Your task to perform on an android device: turn off notifications settings in the gmail app Image 0: 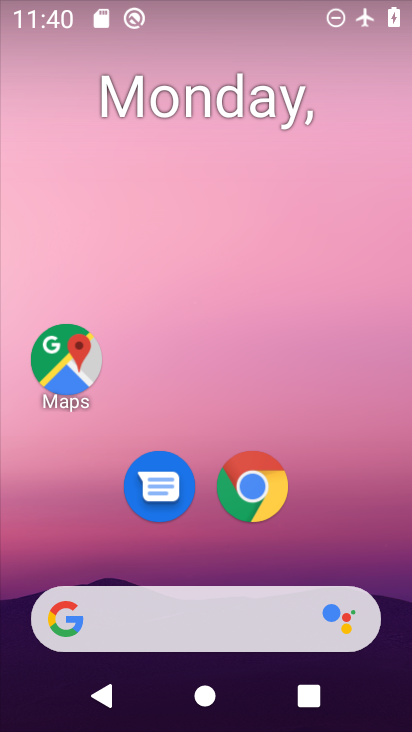
Step 0: drag from (73, 518) to (229, 229)
Your task to perform on an android device: turn off notifications settings in the gmail app Image 1: 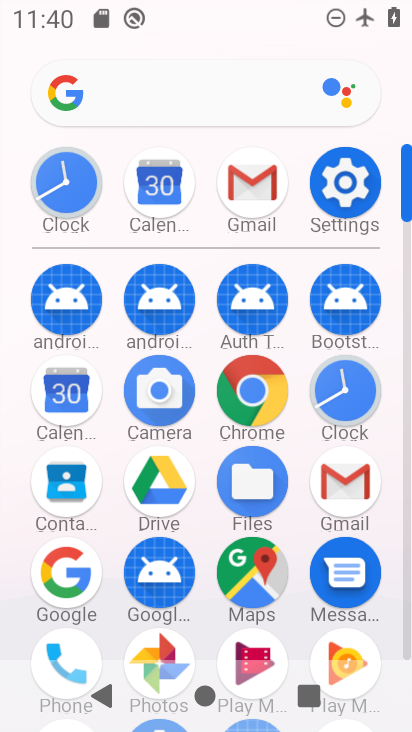
Step 1: click (242, 181)
Your task to perform on an android device: turn off notifications settings in the gmail app Image 2: 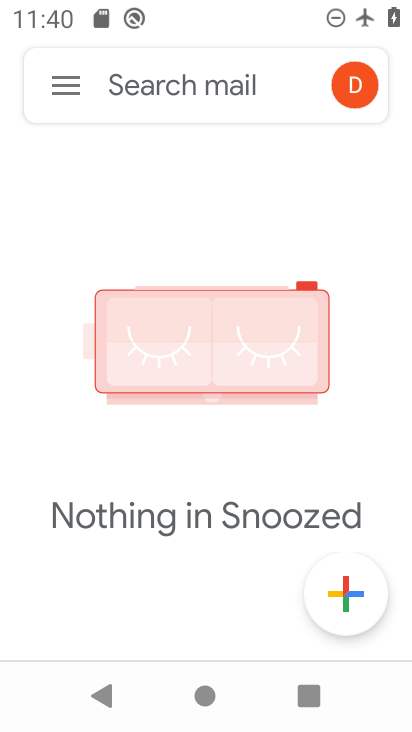
Step 2: click (58, 79)
Your task to perform on an android device: turn off notifications settings in the gmail app Image 3: 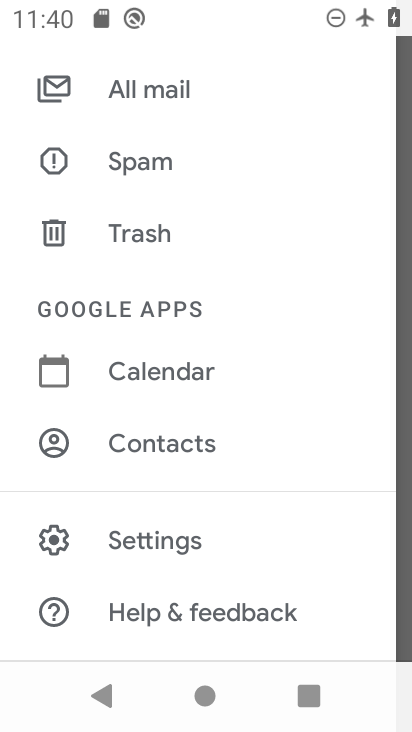
Step 3: click (154, 543)
Your task to perform on an android device: turn off notifications settings in the gmail app Image 4: 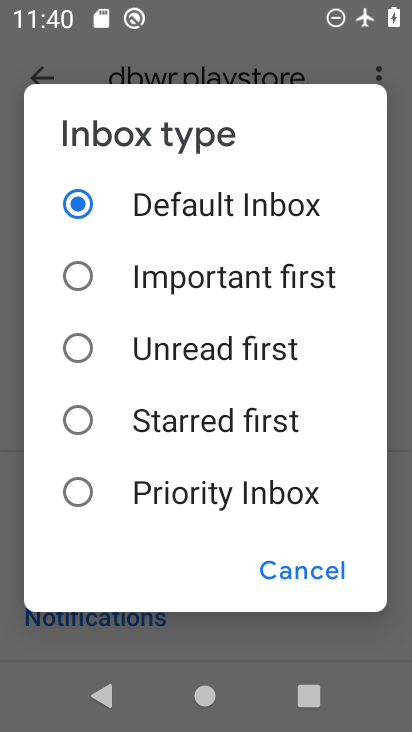
Step 4: click (290, 566)
Your task to perform on an android device: turn off notifications settings in the gmail app Image 5: 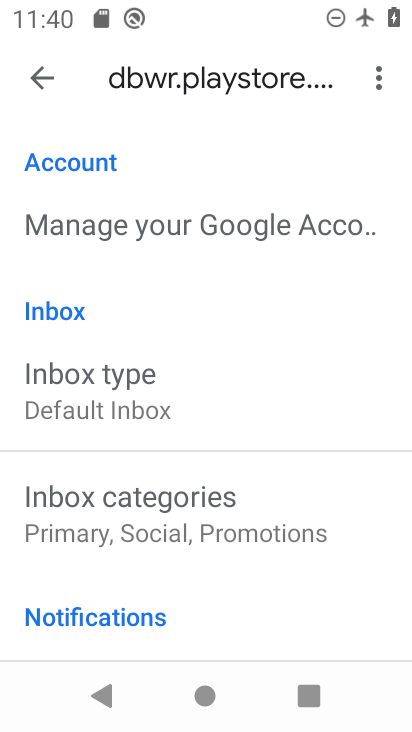
Step 5: drag from (11, 537) to (192, 205)
Your task to perform on an android device: turn off notifications settings in the gmail app Image 6: 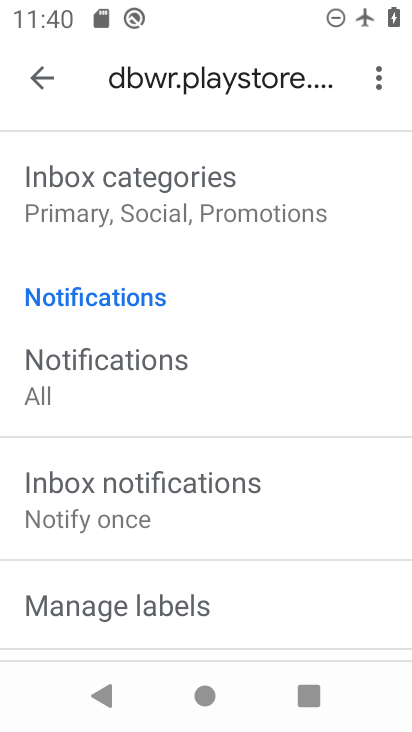
Step 6: drag from (12, 608) to (188, 281)
Your task to perform on an android device: turn off notifications settings in the gmail app Image 7: 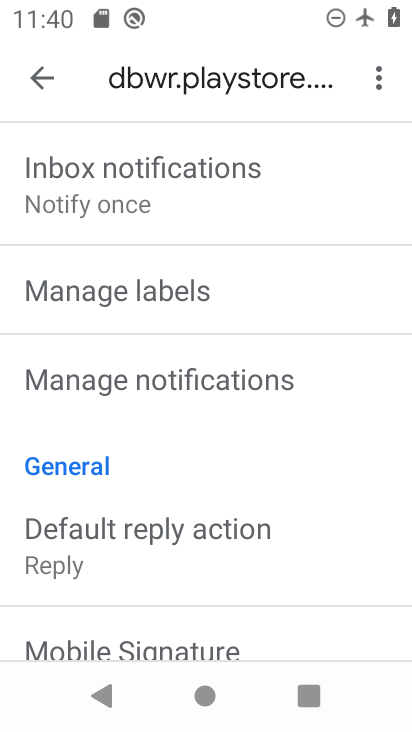
Step 7: click (162, 378)
Your task to perform on an android device: turn off notifications settings in the gmail app Image 8: 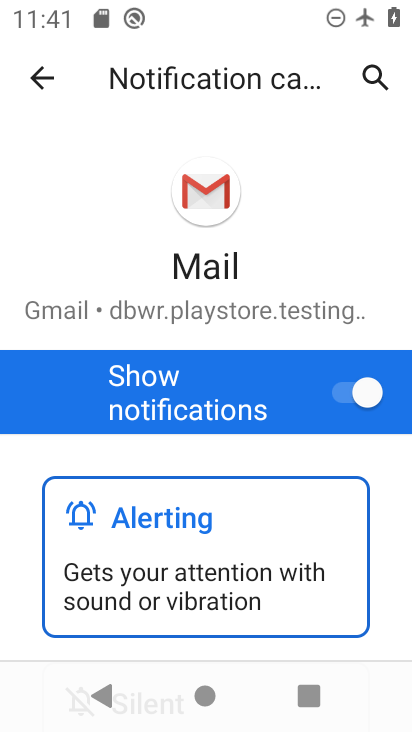
Step 8: click (381, 392)
Your task to perform on an android device: turn off notifications settings in the gmail app Image 9: 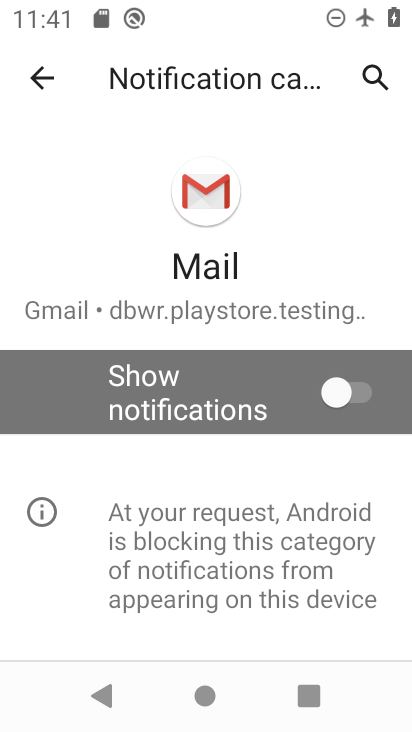
Step 9: task complete